Your task to perform on an android device: all mails in gmail Image 0: 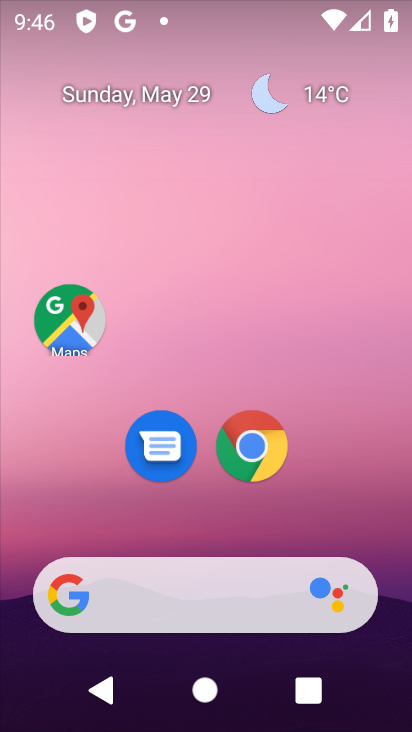
Step 0: drag from (316, 426) to (254, 10)
Your task to perform on an android device: all mails in gmail Image 1: 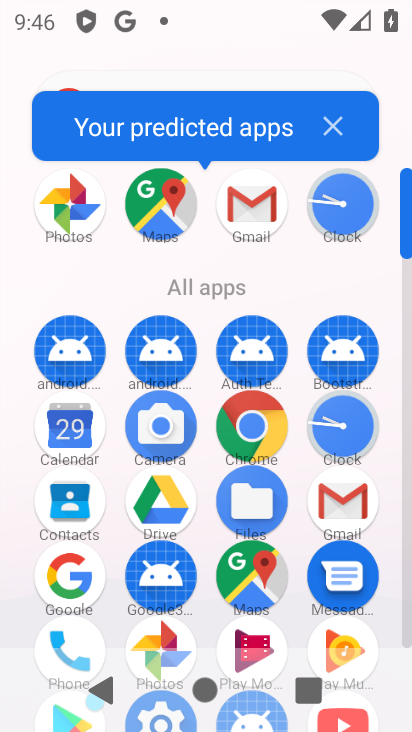
Step 1: drag from (22, 542) to (28, 188)
Your task to perform on an android device: all mails in gmail Image 2: 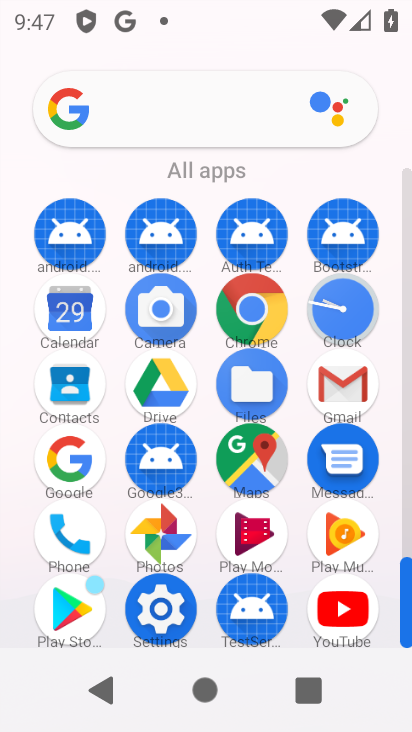
Step 2: click (340, 377)
Your task to perform on an android device: all mails in gmail Image 3: 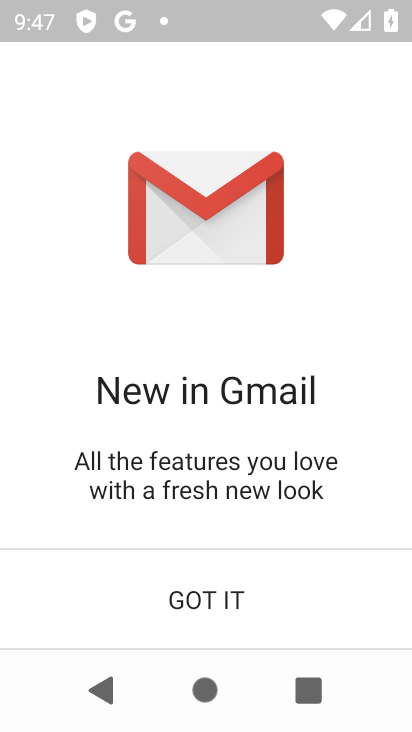
Step 3: click (233, 590)
Your task to perform on an android device: all mails in gmail Image 4: 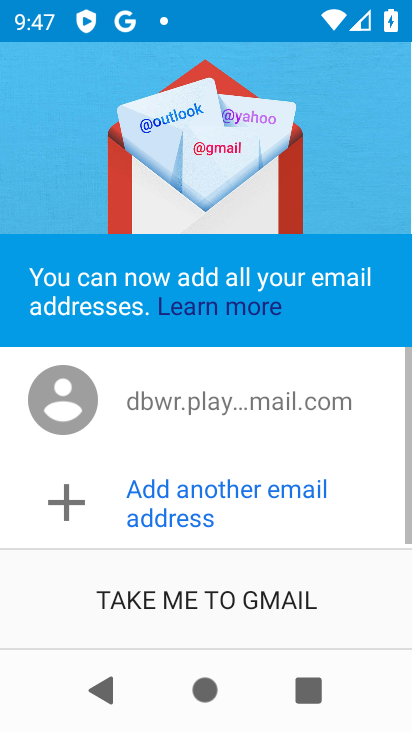
Step 4: click (233, 590)
Your task to perform on an android device: all mails in gmail Image 5: 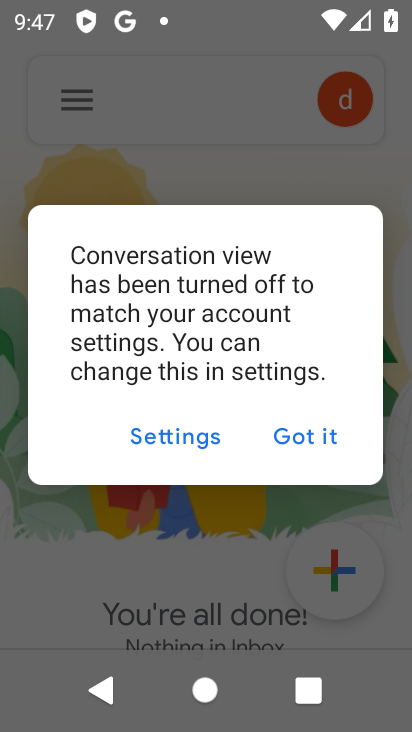
Step 5: click (304, 420)
Your task to perform on an android device: all mails in gmail Image 6: 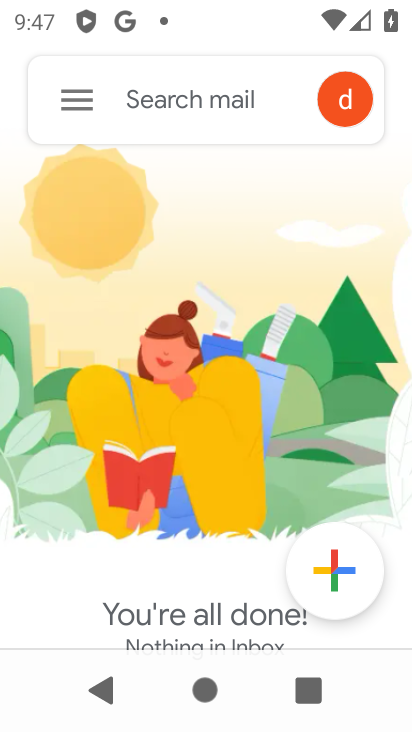
Step 6: click (69, 101)
Your task to perform on an android device: all mails in gmail Image 7: 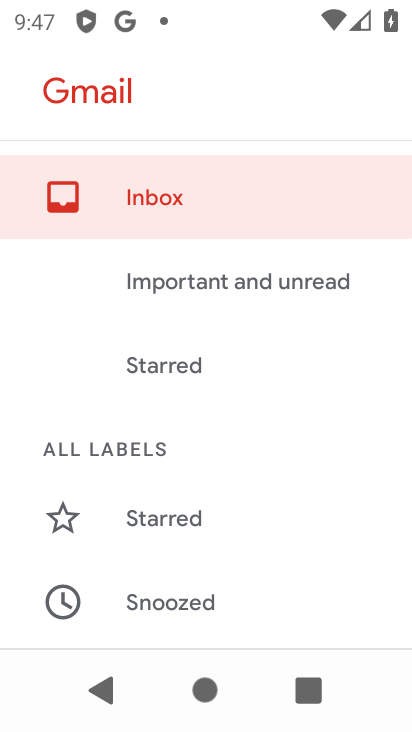
Step 7: drag from (216, 597) to (264, 190)
Your task to perform on an android device: all mails in gmail Image 8: 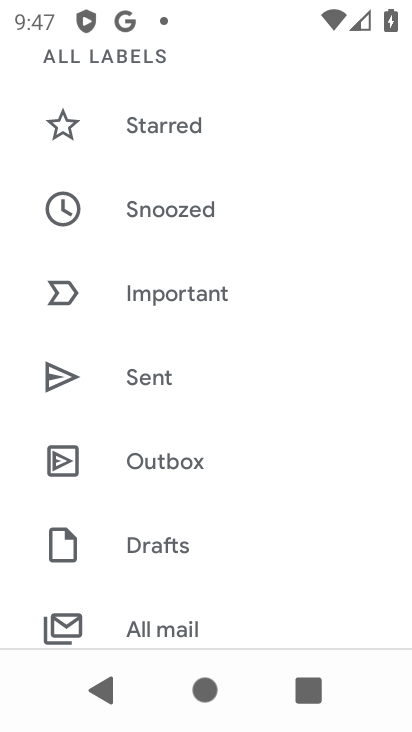
Step 8: click (192, 621)
Your task to perform on an android device: all mails in gmail Image 9: 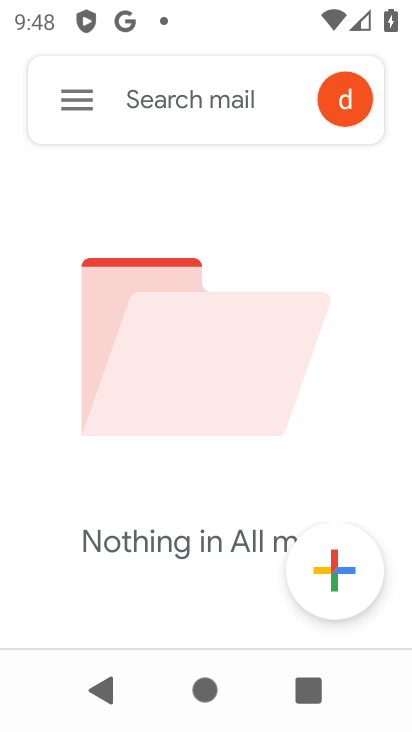
Step 9: task complete